Your task to perform on an android device: What's on my calendar today? Image 0: 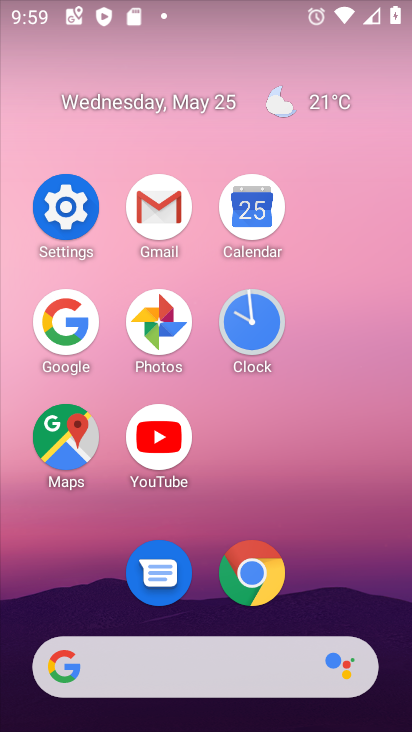
Step 0: click (245, 213)
Your task to perform on an android device: What's on my calendar today? Image 1: 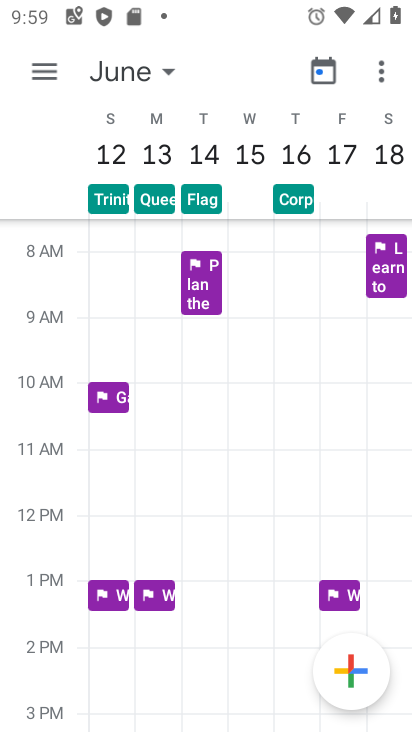
Step 1: drag from (94, 165) to (406, 138)
Your task to perform on an android device: What's on my calendar today? Image 2: 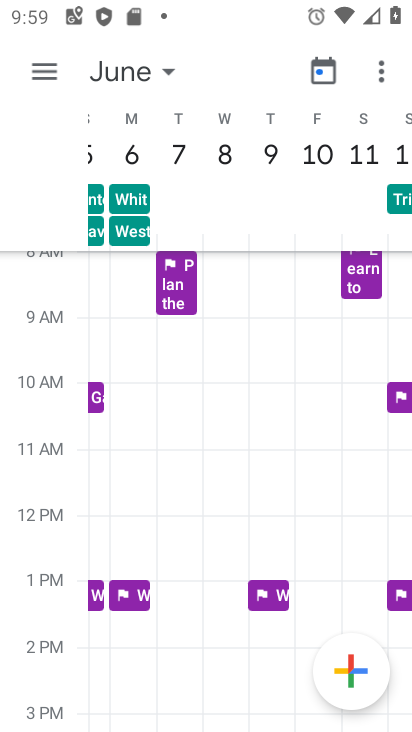
Step 2: drag from (85, 161) to (389, 157)
Your task to perform on an android device: What's on my calendar today? Image 3: 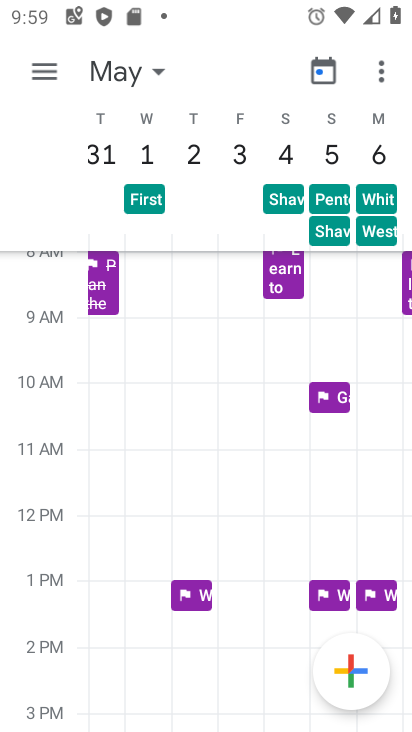
Step 3: drag from (133, 150) to (391, 138)
Your task to perform on an android device: What's on my calendar today? Image 4: 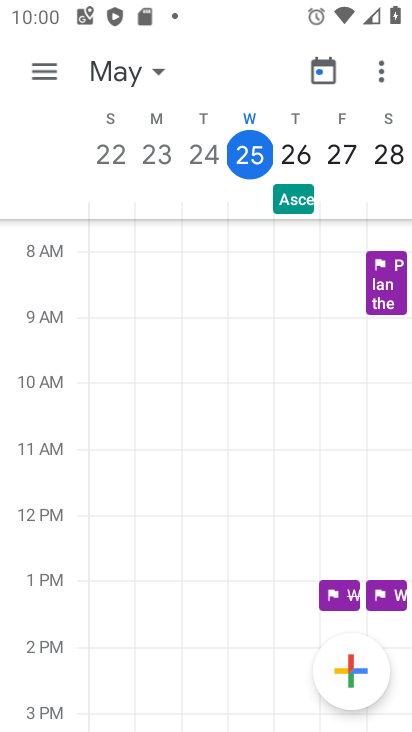
Step 4: click (298, 160)
Your task to perform on an android device: What's on my calendar today? Image 5: 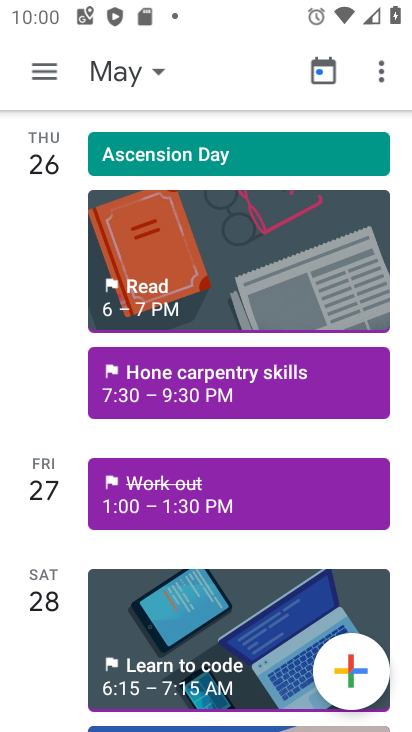
Step 5: task complete